Your task to perform on an android device: install app "Calculator" Image 0: 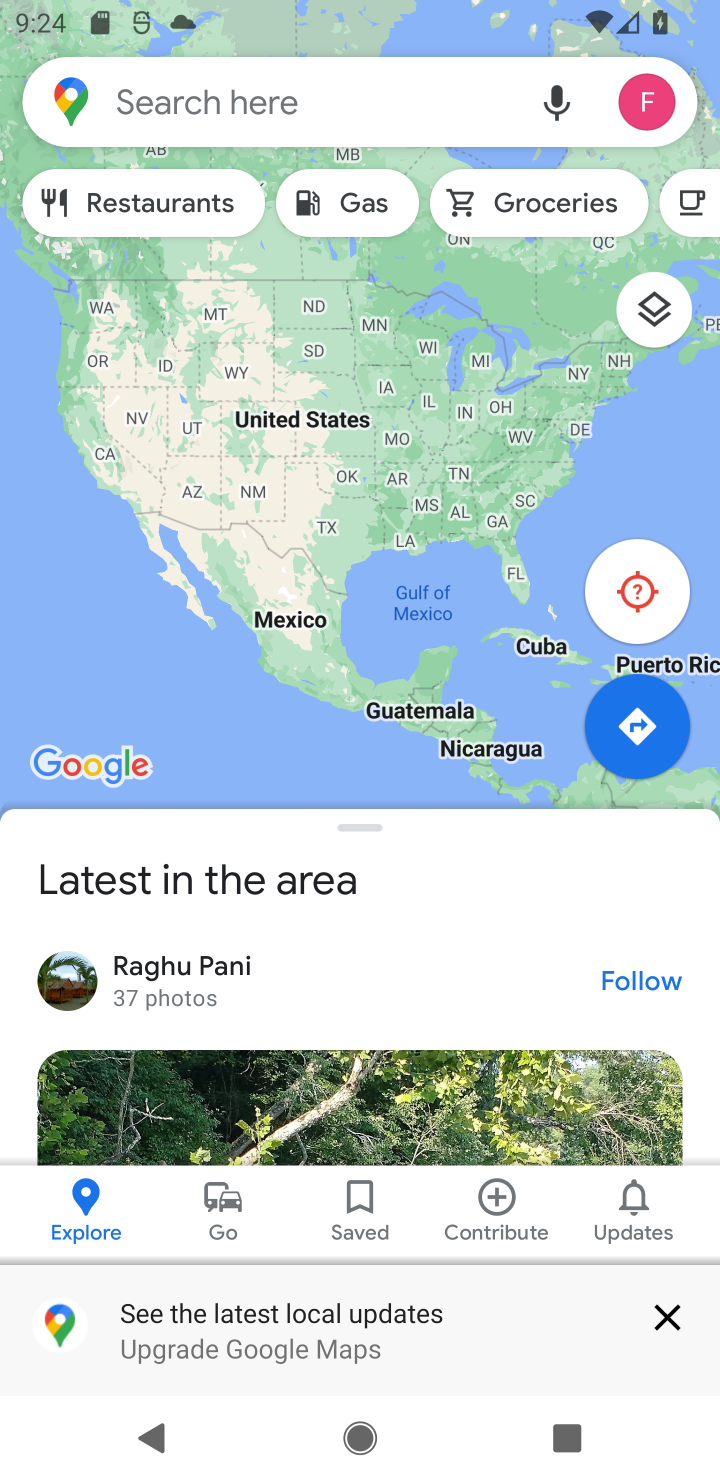
Step 0: press home button
Your task to perform on an android device: install app "Calculator" Image 1: 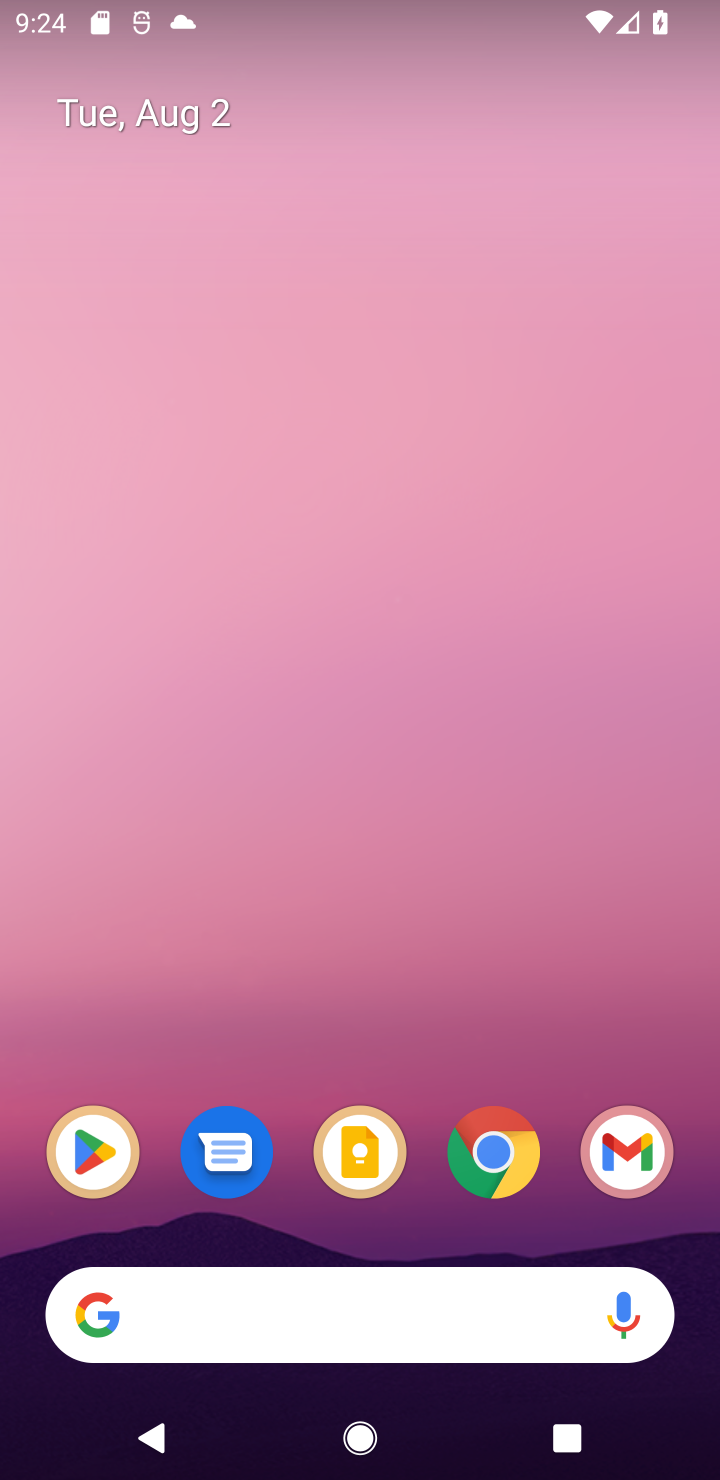
Step 1: click (109, 1160)
Your task to perform on an android device: install app "Calculator" Image 2: 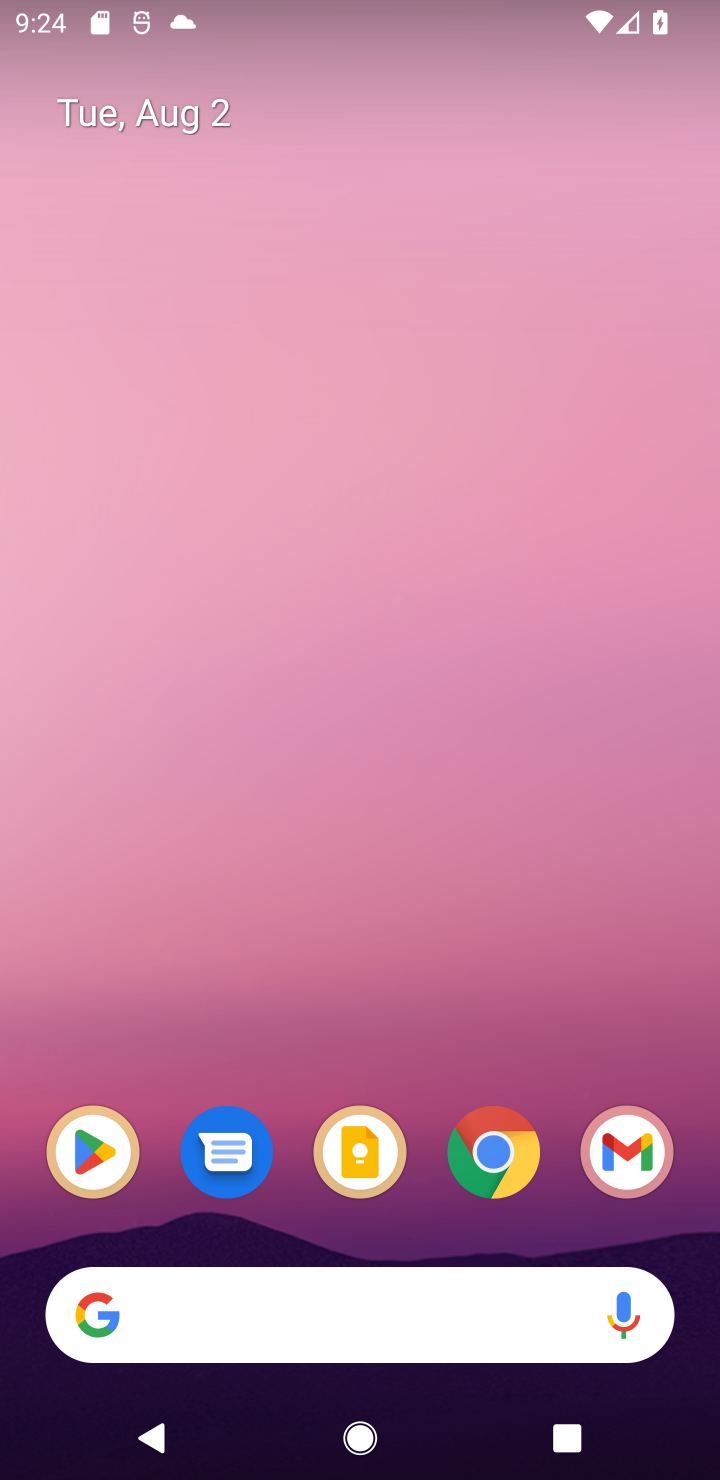
Step 2: click (109, 1160)
Your task to perform on an android device: install app "Calculator" Image 3: 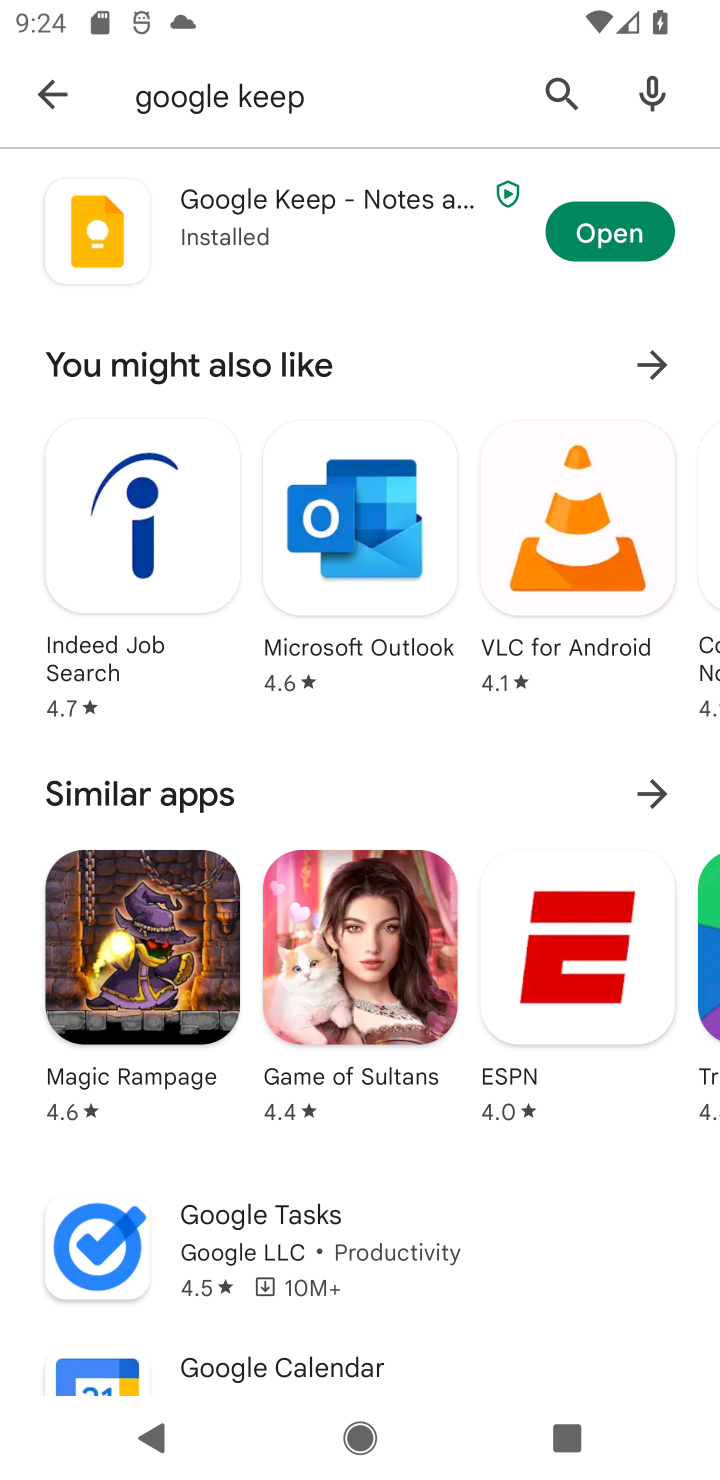
Step 3: click (43, 95)
Your task to perform on an android device: install app "Calculator" Image 4: 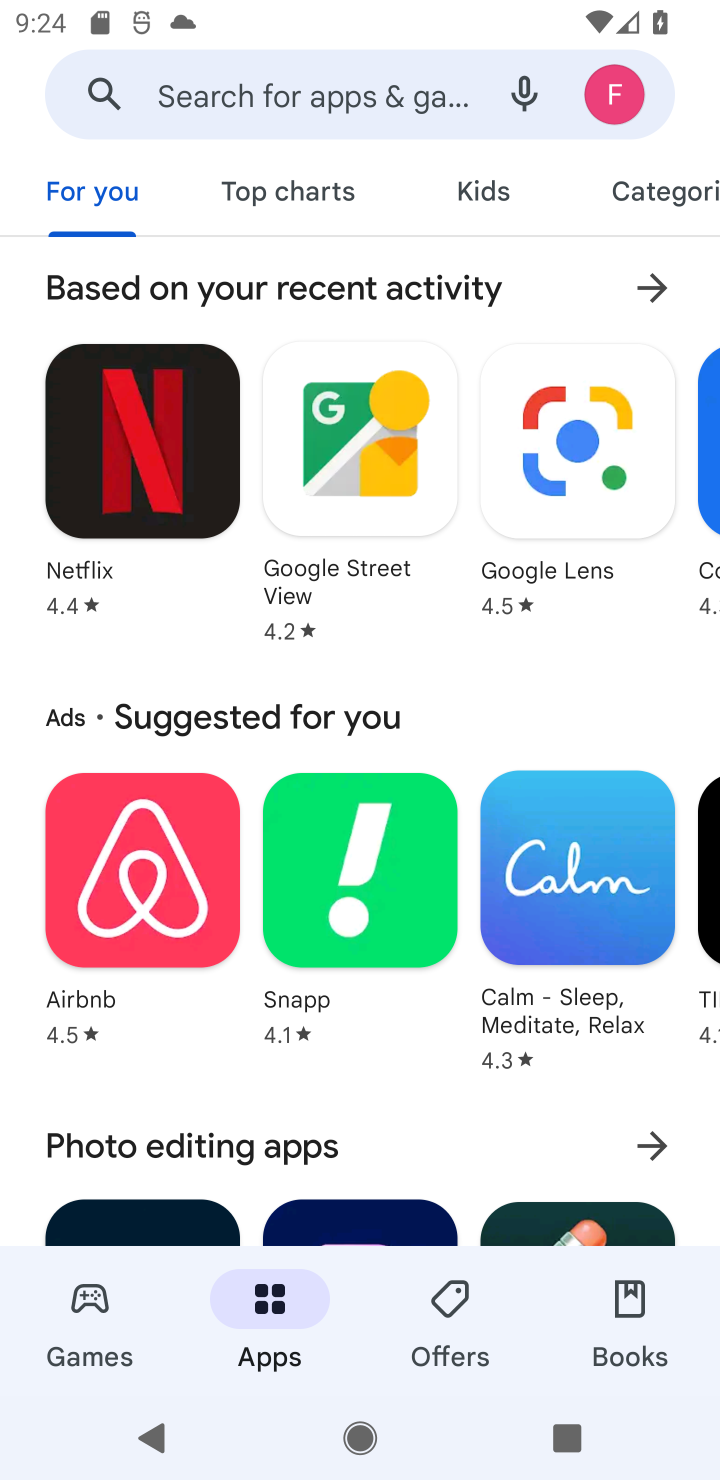
Step 4: click (233, 59)
Your task to perform on an android device: install app "Calculator" Image 5: 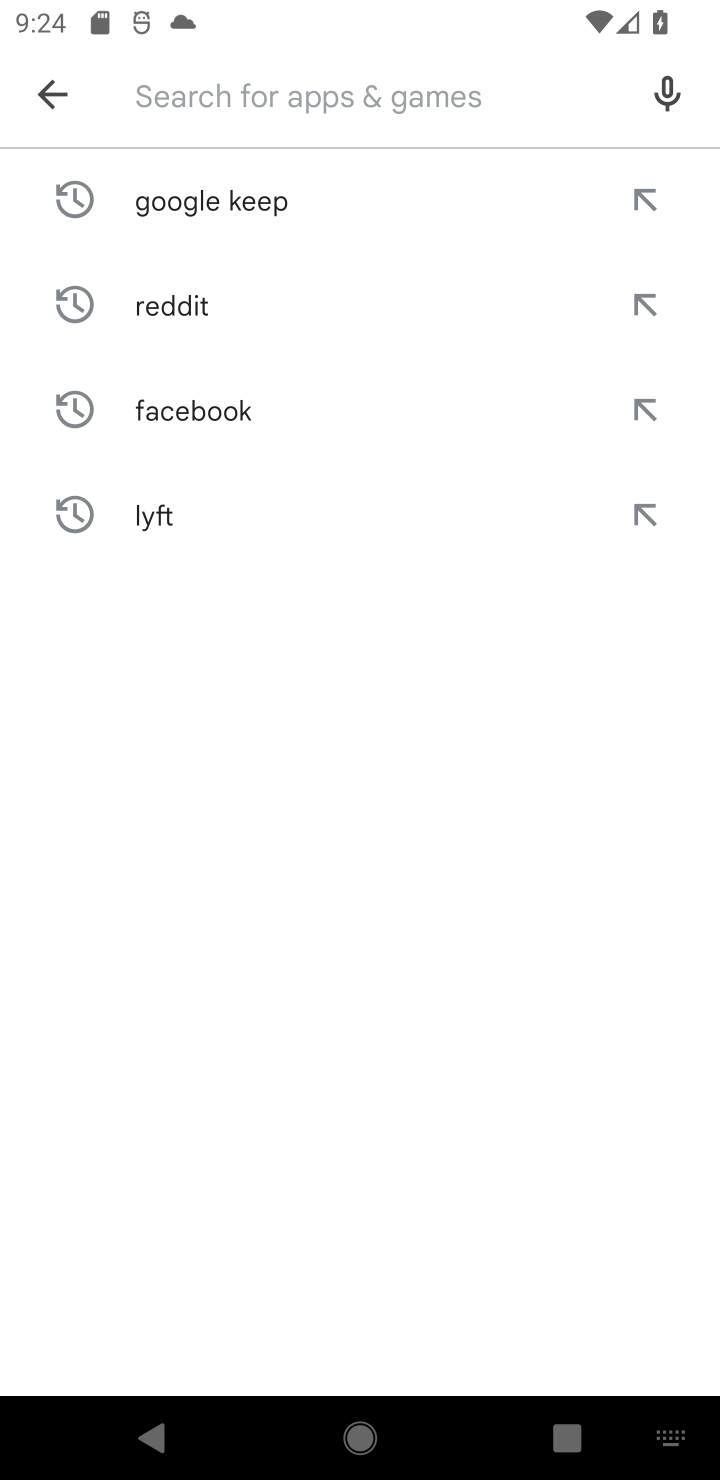
Step 5: type "Calculator"
Your task to perform on an android device: install app "Calculator" Image 6: 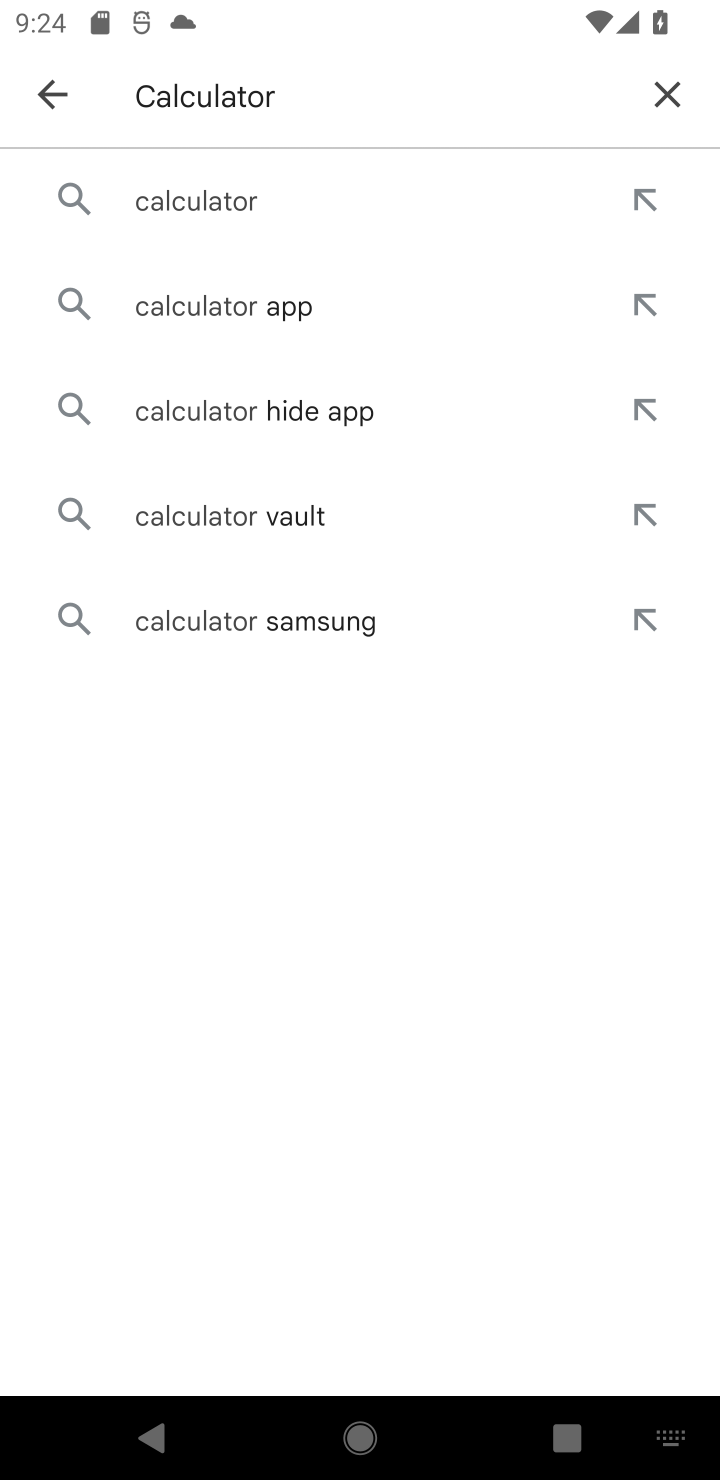
Step 6: click (181, 219)
Your task to perform on an android device: install app "Calculator" Image 7: 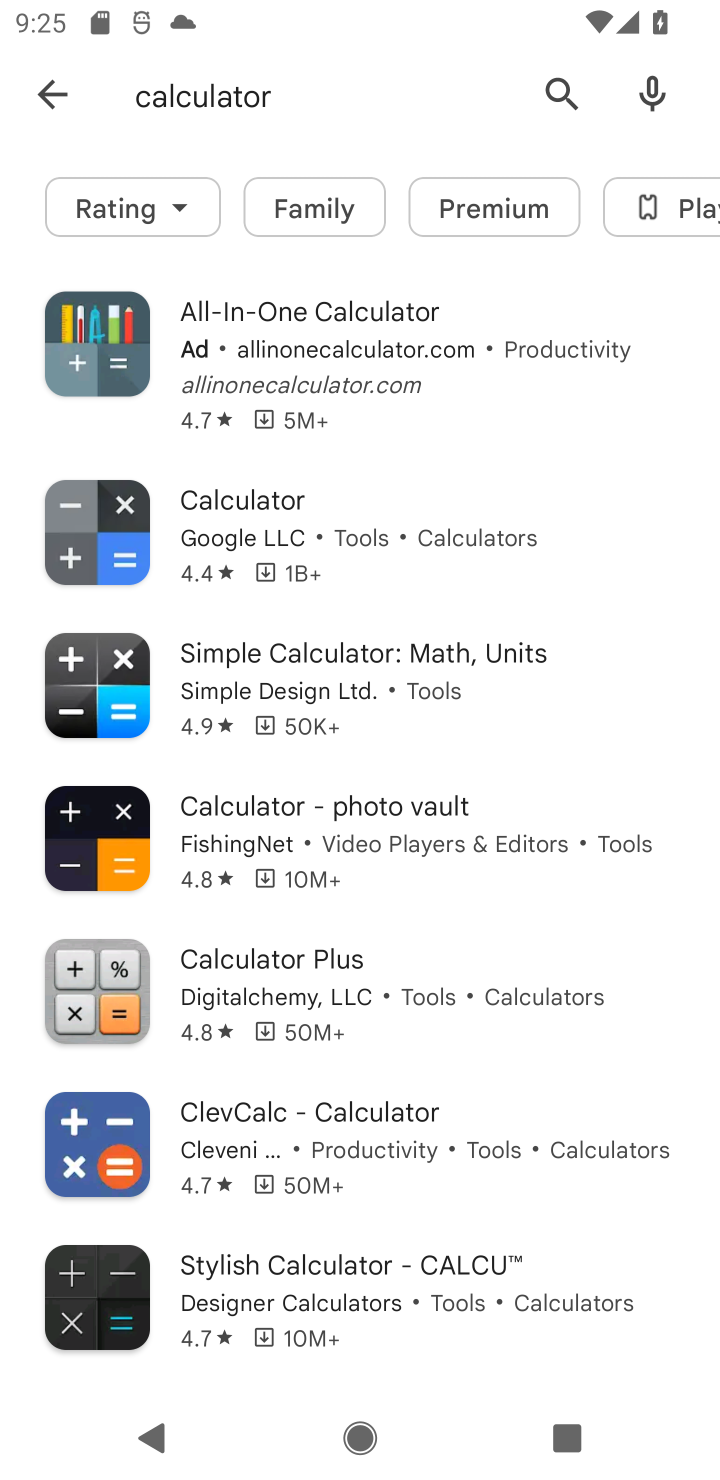
Step 7: click (305, 501)
Your task to perform on an android device: install app "Calculator" Image 8: 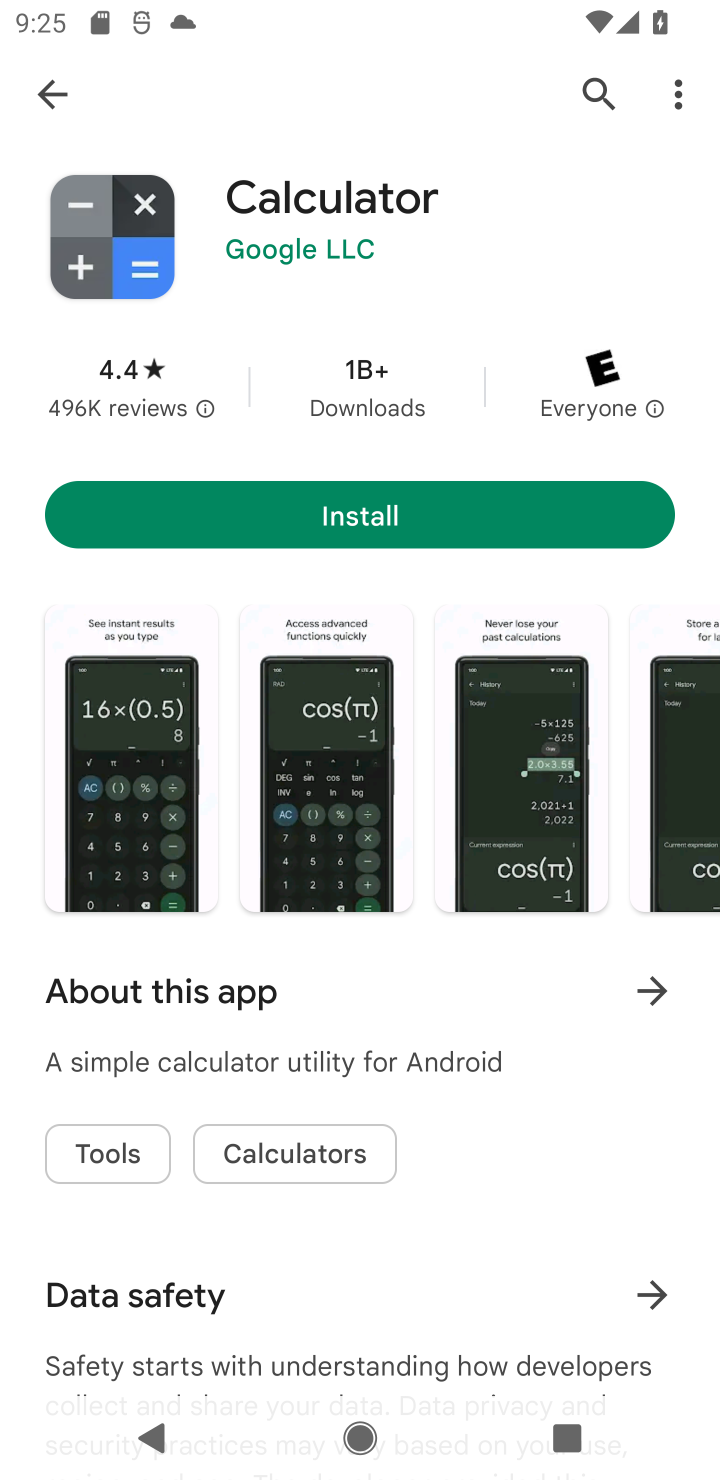
Step 8: click (342, 501)
Your task to perform on an android device: install app "Calculator" Image 9: 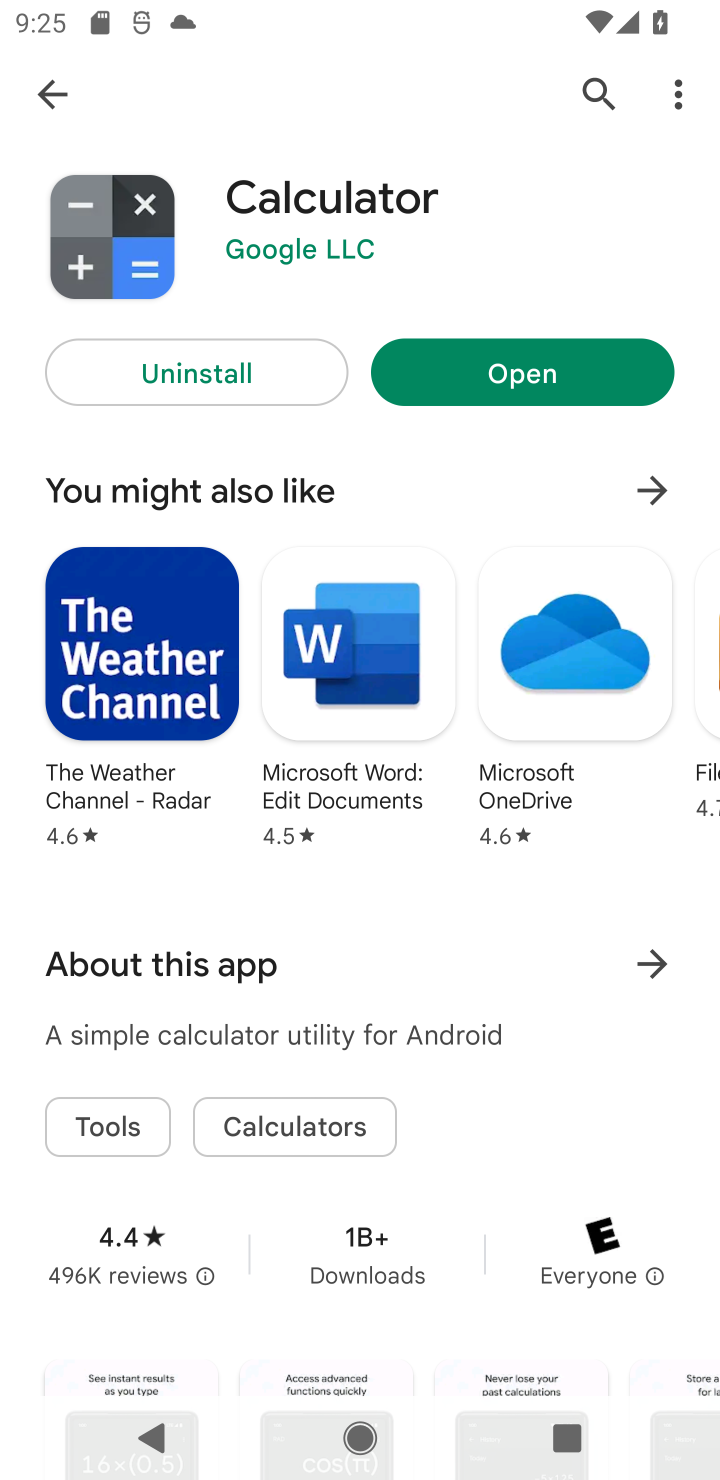
Step 9: click (519, 377)
Your task to perform on an android device: install app "Calculator" Image 10: 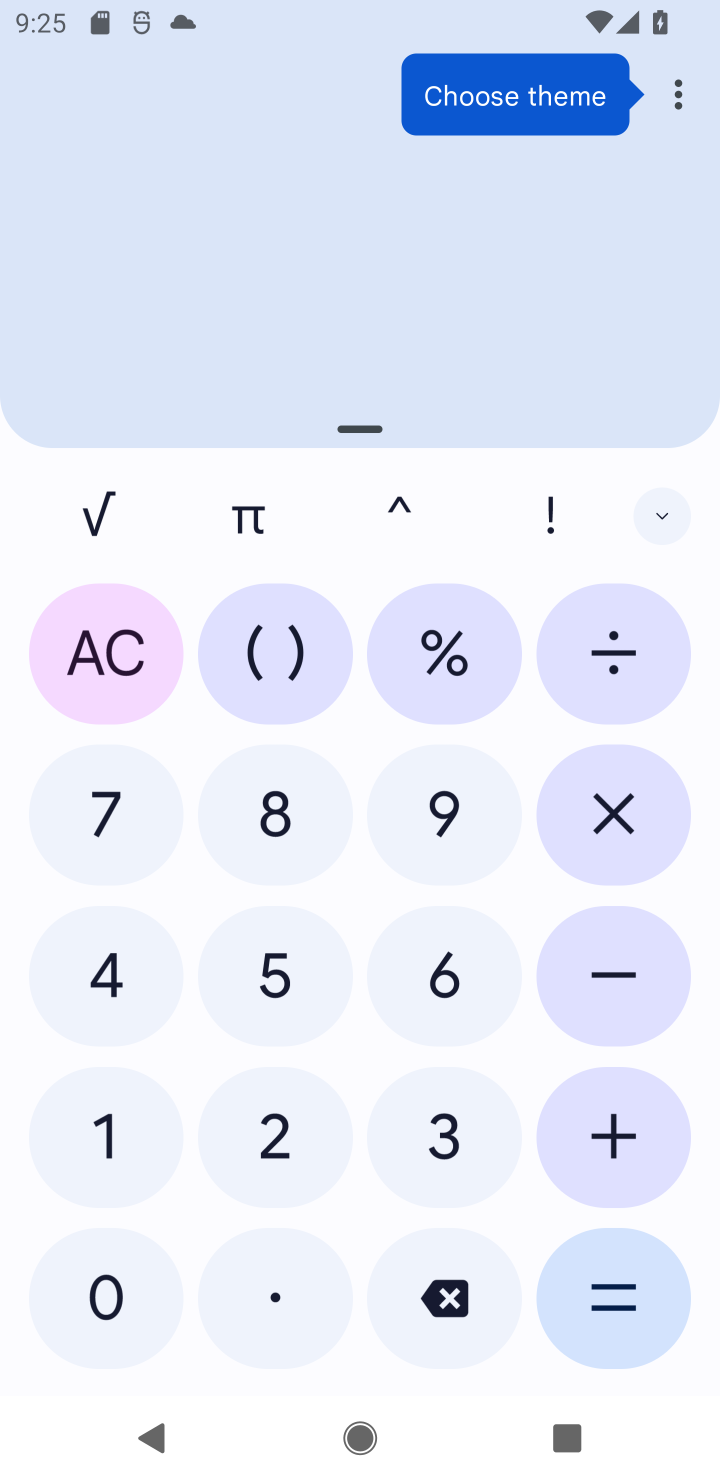
Step 10: task complete